Your task to perform on an android device: Search for logitech g502 on ebay.com, select the first entry, add it to the cart, then select checkout. Image 0: 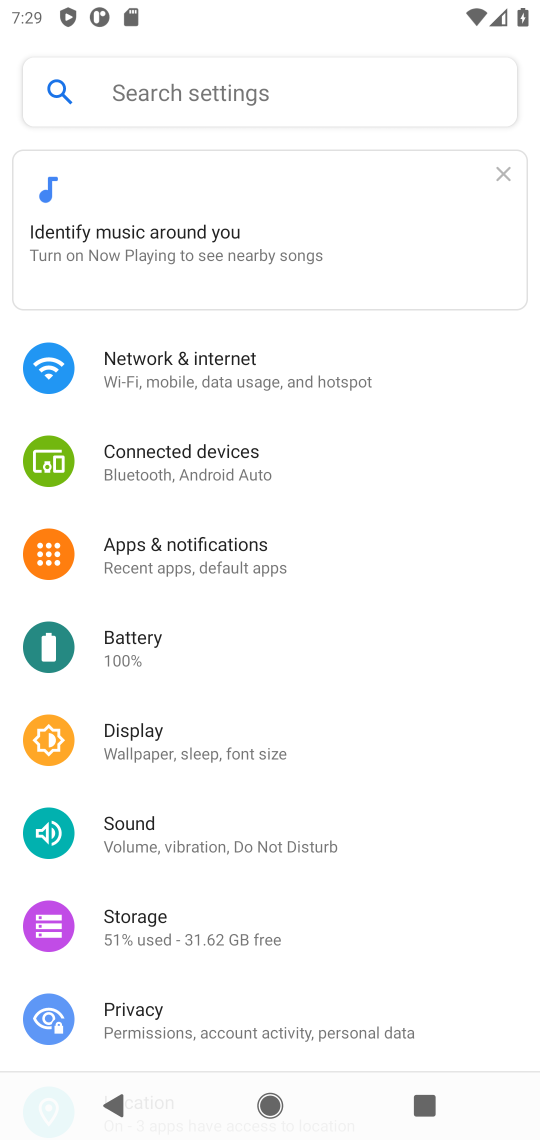
Step 0: press home button
Your task to perform on an android device: Search for logitech g502 on ebay.com, select the first entry, add it to the cart, then select checkout. Image 1: 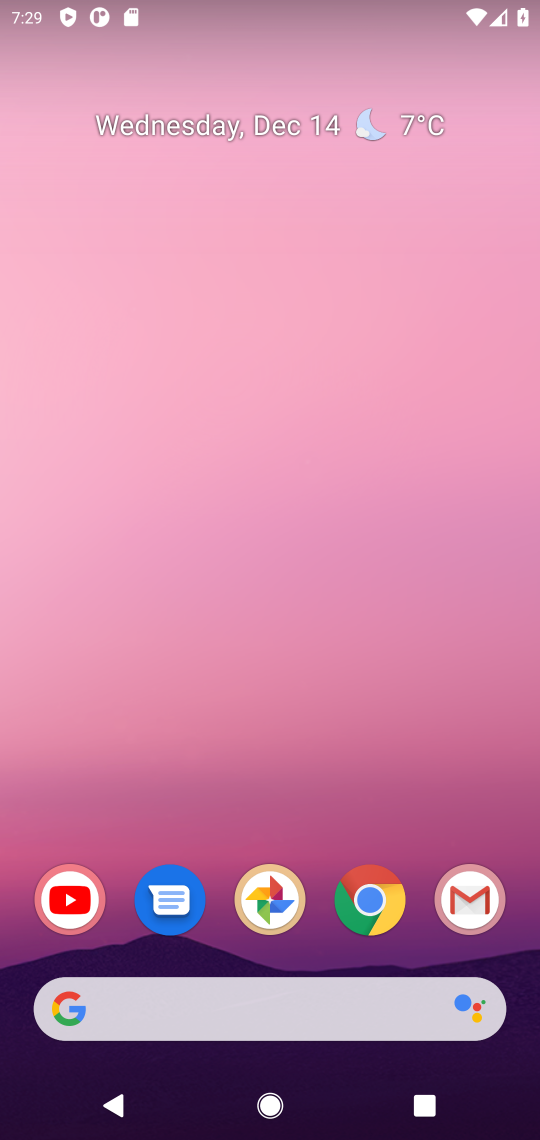
Step 1: click (244, 1002)
Your task to perform on an android device: Search for logitech g502 on ebay.com, select the first entry, add it to the cart, then select checkout. Image 2: 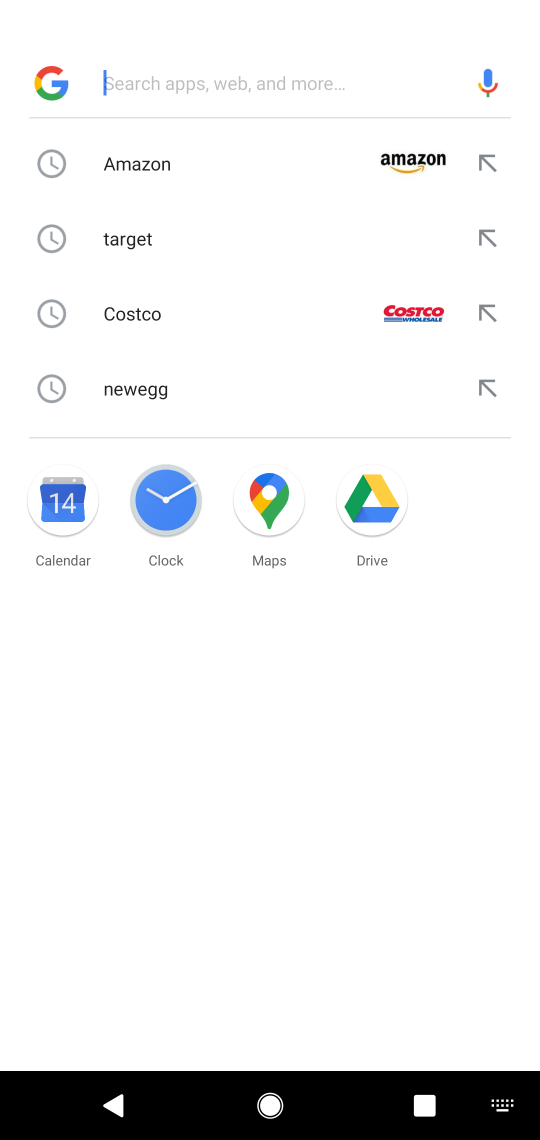
Step 2: type "ebay.com,"
Your task to perform on an android device: Search for logitech g502 on ebay.com, select the first entry, add it to the cart, then select checkout. Image 3: 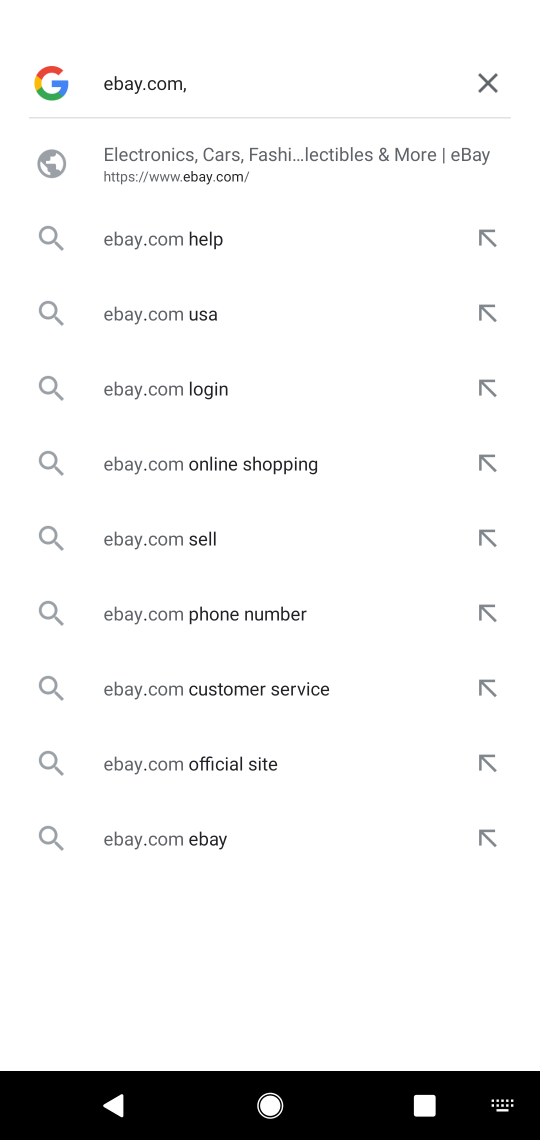
Step 3: click (194, 171)
Your task to perform on an android device: Search for logitech g502 on ebay.com, select the first entry, add it to the cart, then select checkout. Image 4: 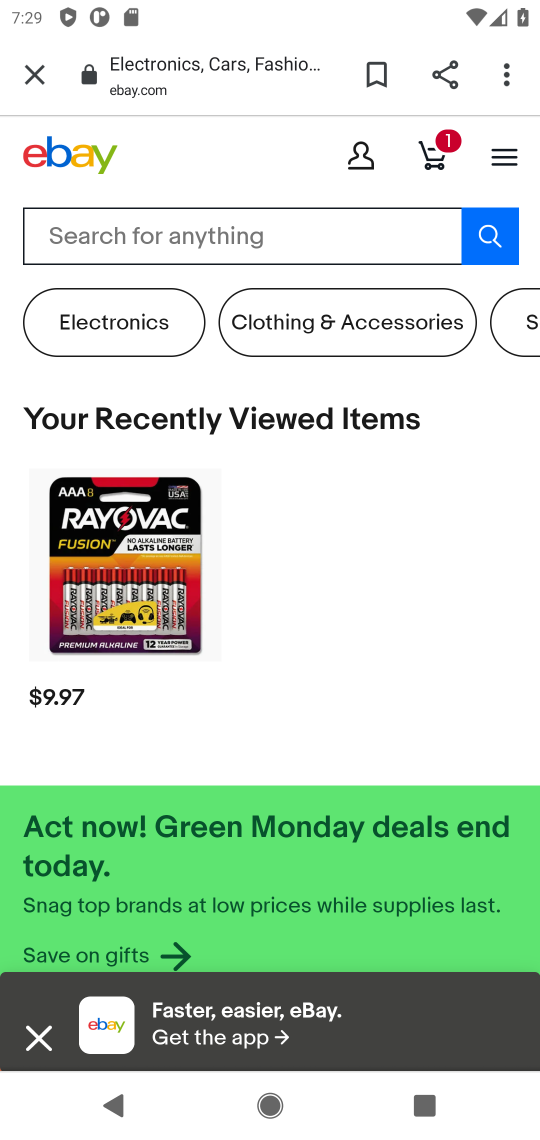
Step 4: click (182, 238)
Your task to perform on an android device: Search for logitech g502 on ebay.com, select the first entry, add it to the cart, then select checkout. Image 5: 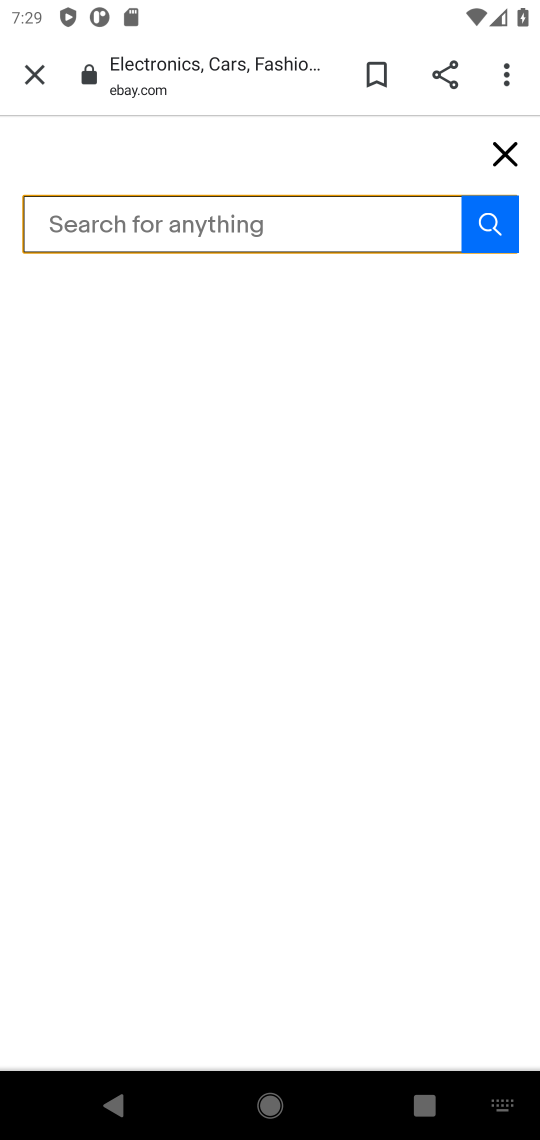
Step 5: type " logitech g502"
Your task to perform on an android device: Search for logitech g502 on ebay.com, select the first entry, add it to the cart, then select checkout. Image 6: 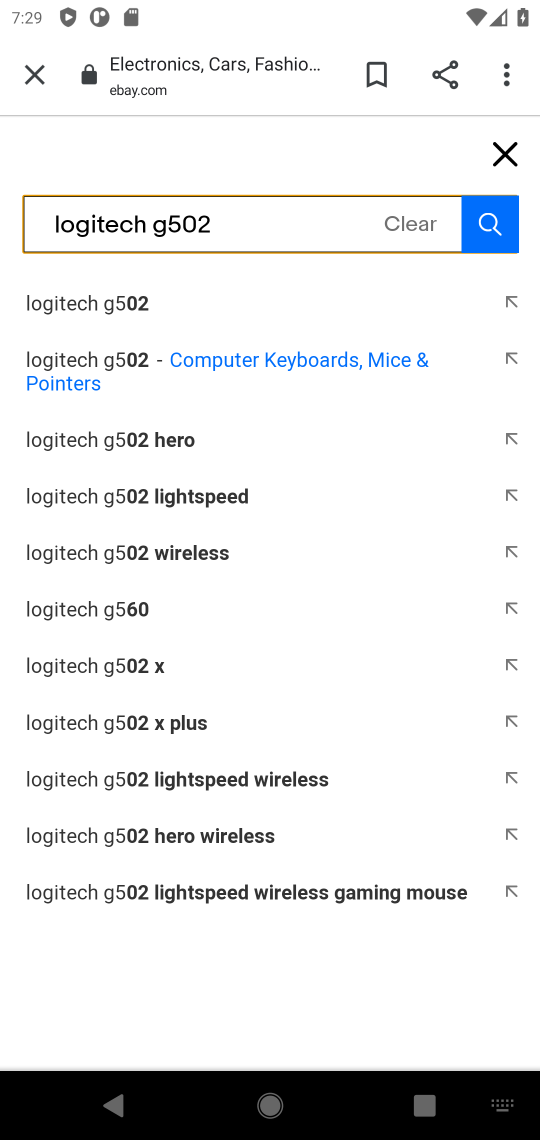
Step 6: click (108, 298)
Your task to perform on an android device: Search for logitech g502 on ebay.com, select the first entry, add it to the cart, then select checkout. Image 7: 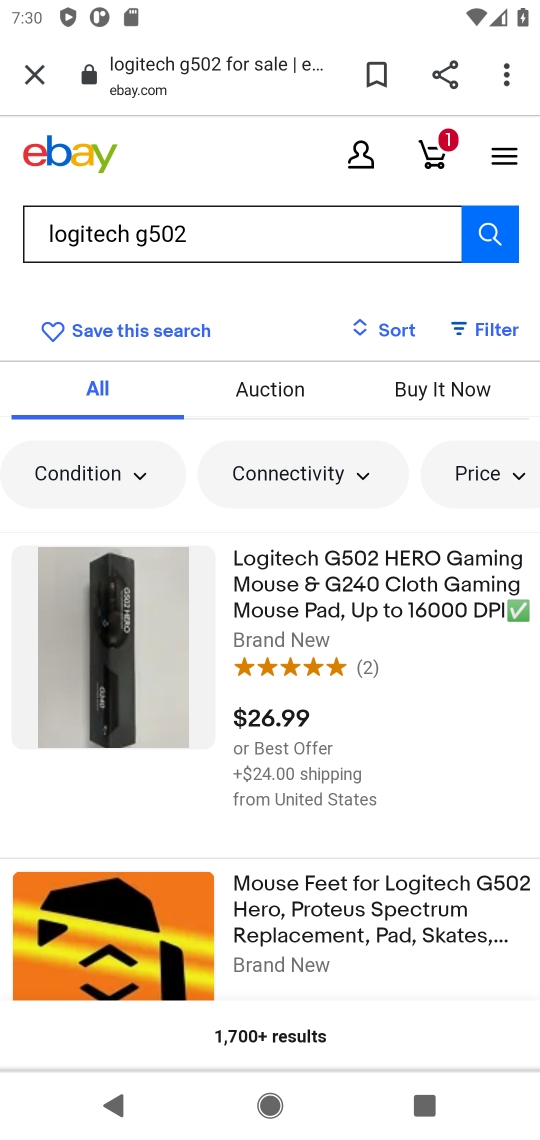
Step 7: click (294, 576)
Your task to perform on an android device: Search for logitech g502 on ebay.com, select the first entry, add it to the cart, then select checkout. Image 8: 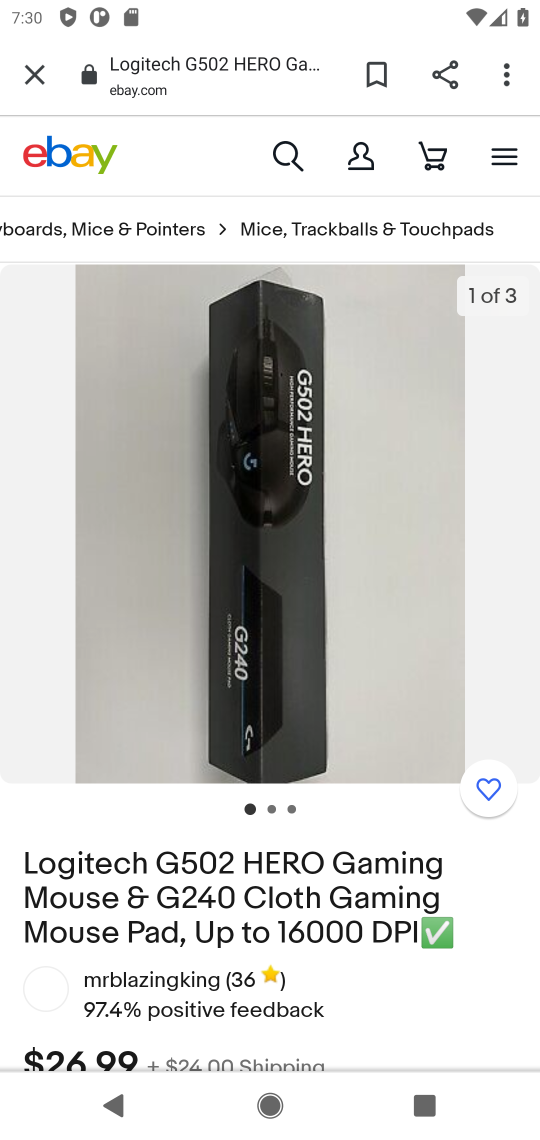
Step 8: drag from (317, 871) to (379, 436)
Your task to perform on an android device: Search for logitech g502 on ebay.com, select the first entry, add it to the cart, then select checkout. Image 9: 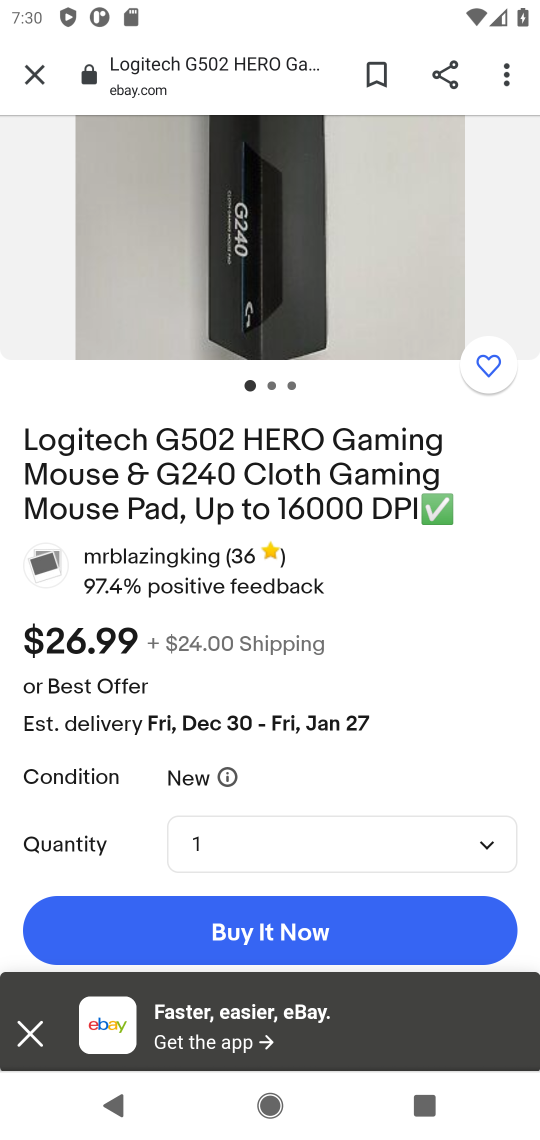
Step 9: drag from (335, 616) to (329, 270)
Your task to perform on an android device: Search for logitech g502 on ebay.com, select the first entry, add it to the cart, then select checkout. Image 10: 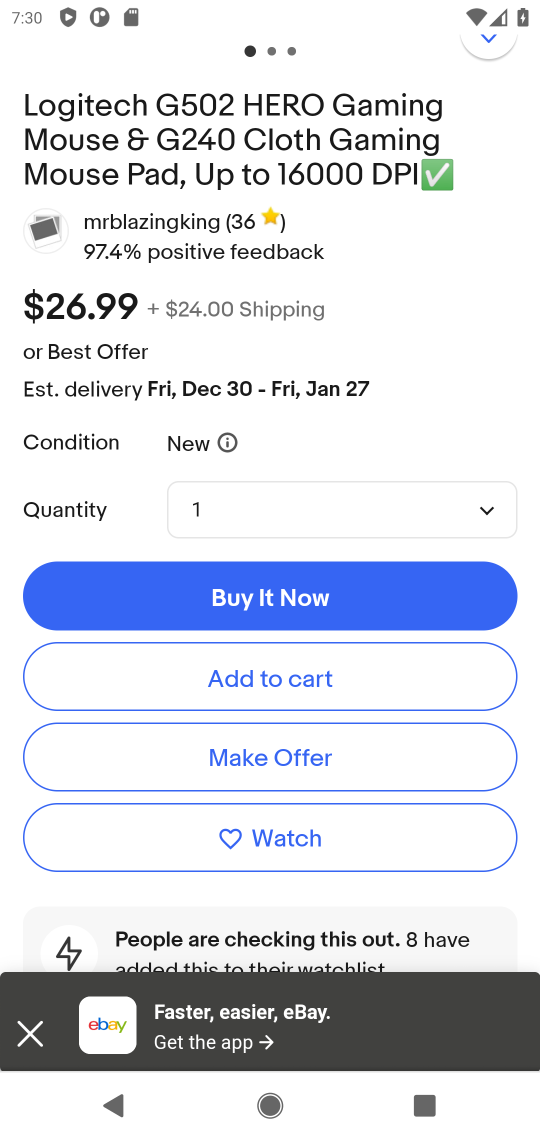
Step 10: click (266, 673)
Your task to perform on an android device: Search for logitech g502 on ebay.com, select the first entry, add it to the cart, then select checkout. Image 11: 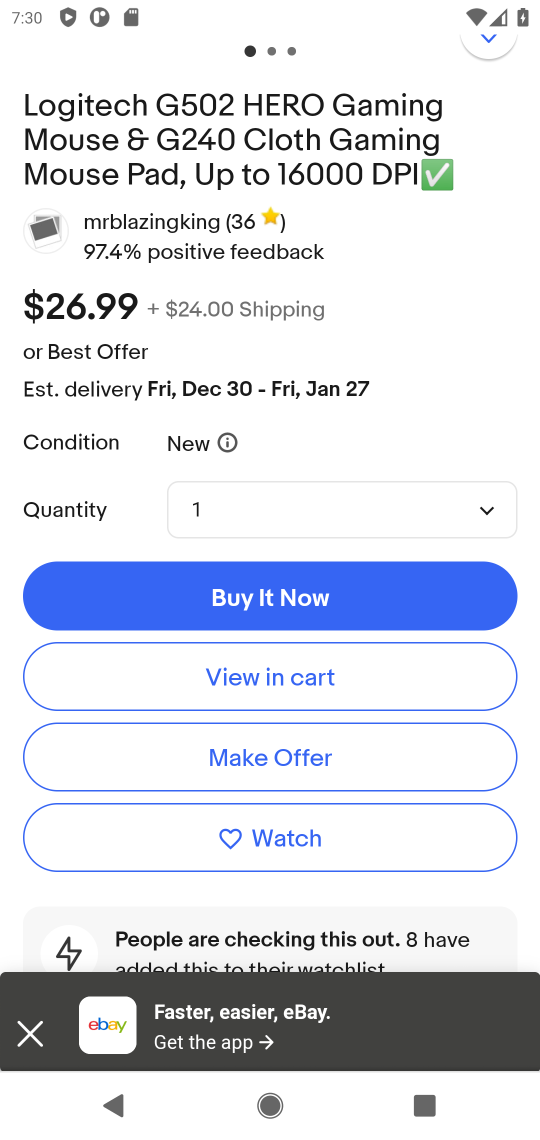
Step 11: click (266, 673)
Your task to perform on an android device: Search for logitech g502 on ebay.com, select the first entry, add it to the cart, then select checkout. Image 12: 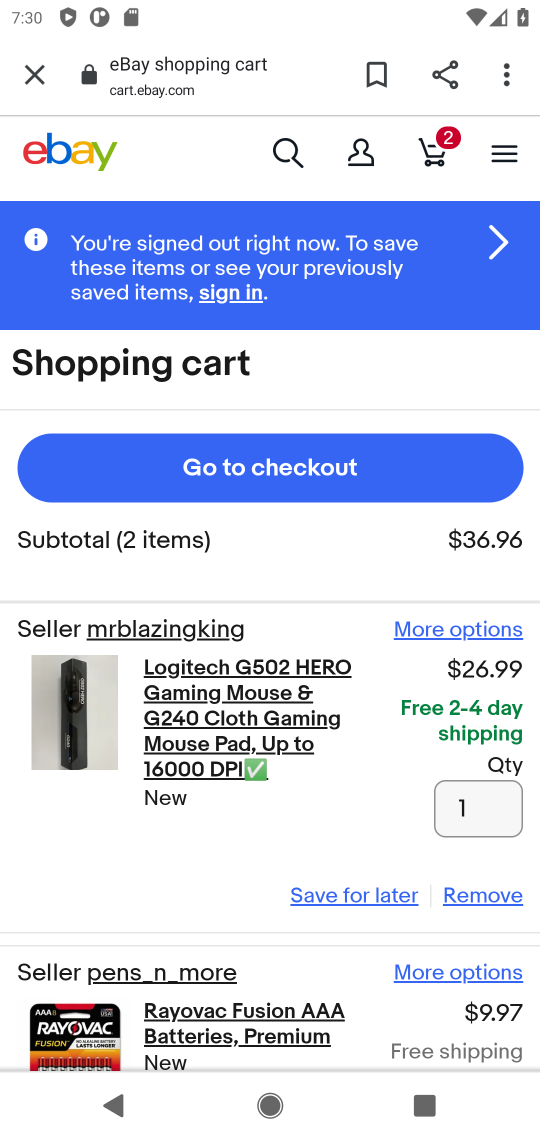
Step 12: click (292, 466)
Your task to perform on an android device: Search for logitech g502 on ebay.com, select the first entry, add it to the cart, then select checkout. Image 13: 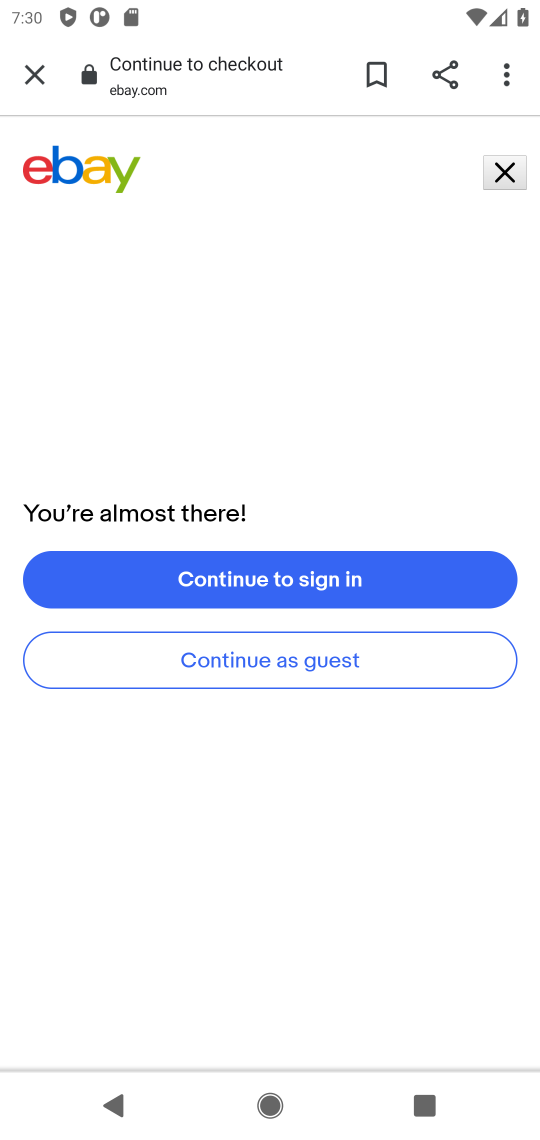
Step 13: task complete